Your task to perform on an android device: open chrome and create a bookmark for the current page Image 0: 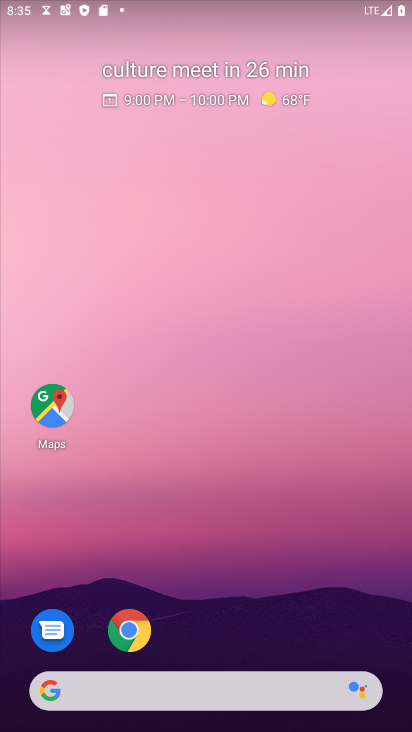
Step 0: click (132, 629)
Your task to perform on an android device: open chrome and create a bookmark for the current page Image 1: 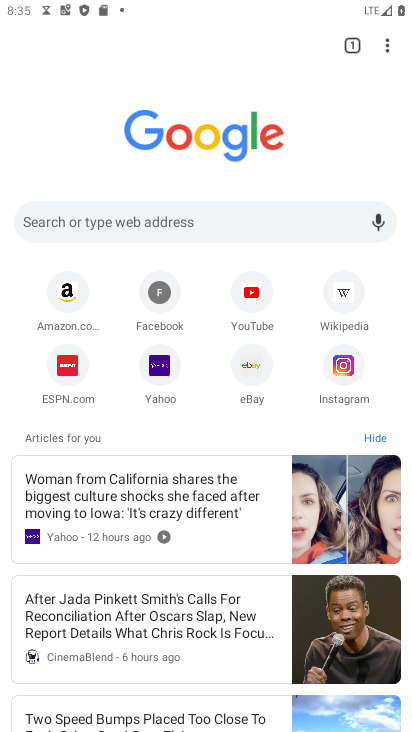
Step 1: click (386, 44)
Your task to perform on an android device: open chrome and create a bookmark for the current page Image 2: 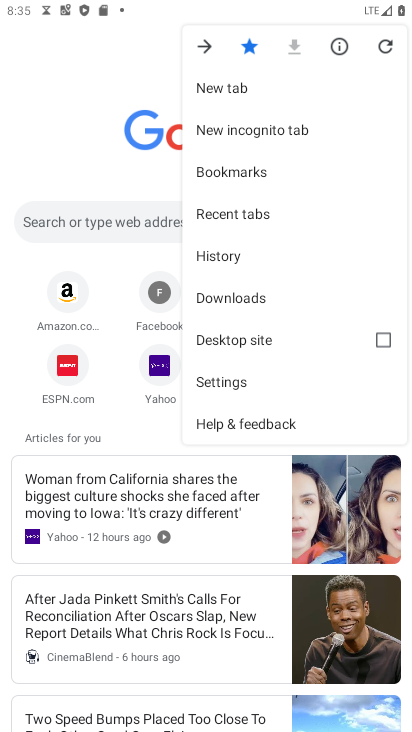
Step 2: task complete